Your task to perform on an android device: turn notification dots off Image 0: 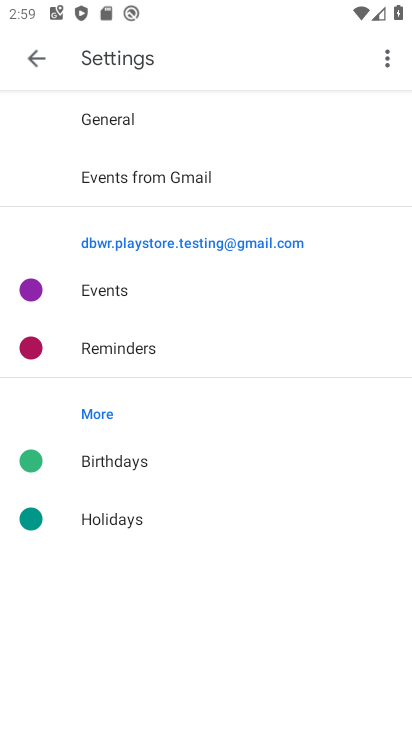
Step 0: press home button
Your task to perform on an android device: turn notification dots off Image 1: 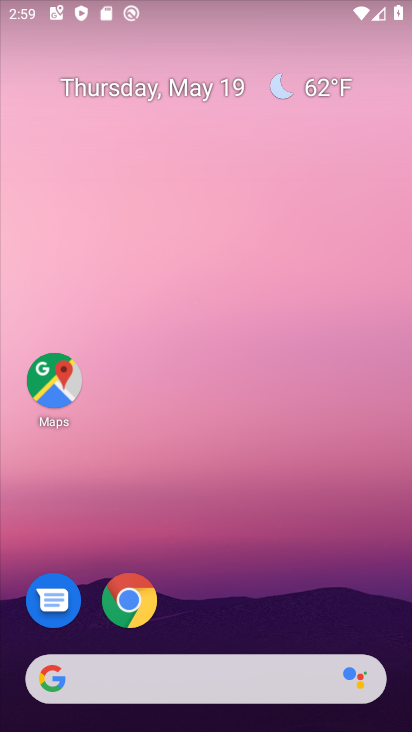
Step 1: drag from (93, 477) to (366, 84)
Your task to perform on an android device: turn notification dots off Image 2: 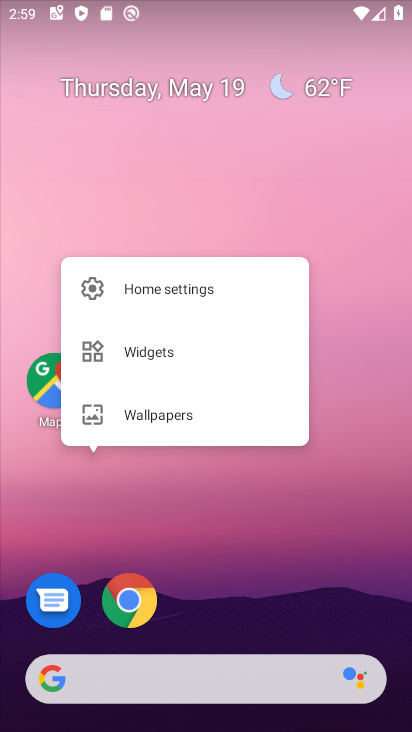
Step 2: drag from (39, 445) to (253, 104)
Your task to perform on an android device: turn notification dots off Image 3: 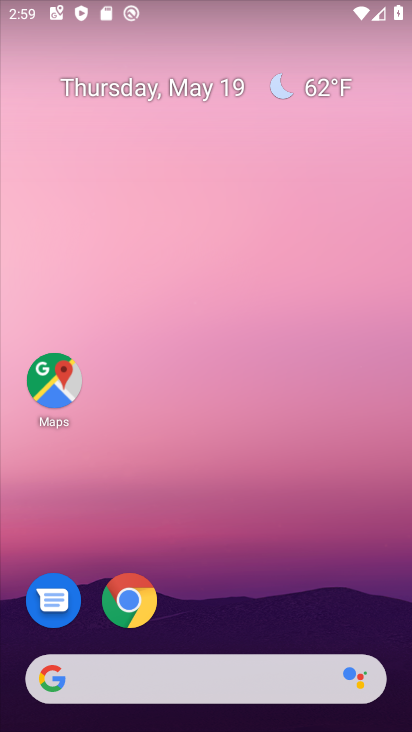
Step 3: drag from (18, 579) to (194, 237)
Your task to perform on an android device: turn notification dots off Image 4: 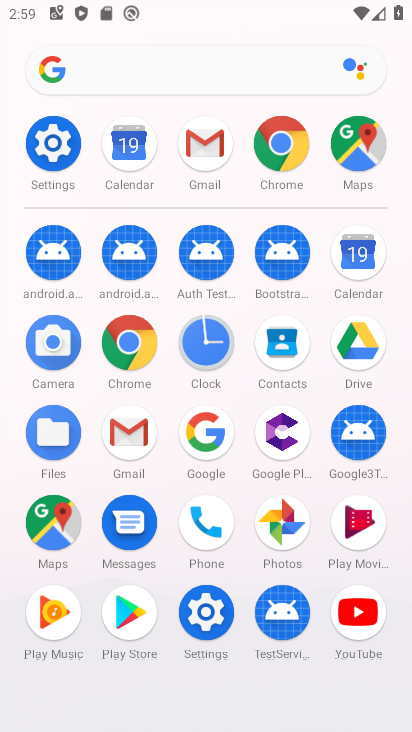
Step 4: click (34, 125)
Your task to perform on an android device: turn notification dots off Image 5: 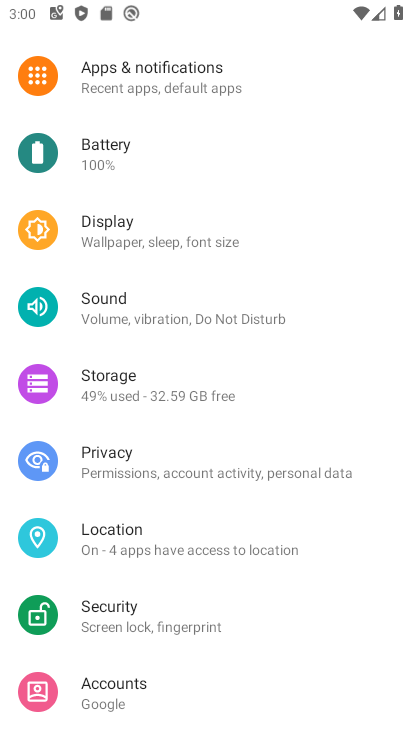
Step 5: click (202, 86)
Your task to perform on an android device: turn notification dots off Image 6: 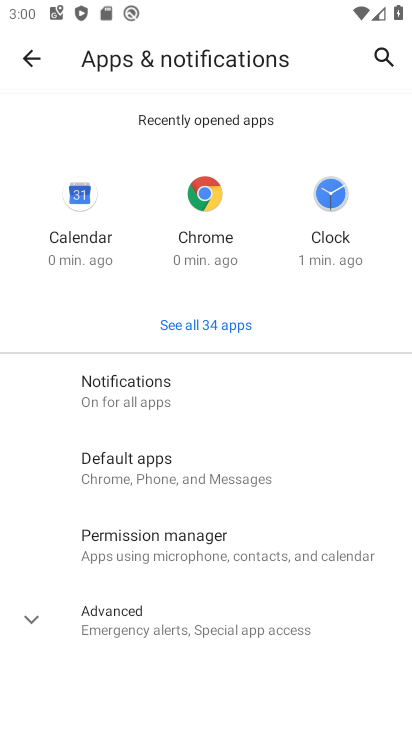
Step 6: click (227, 368)
Your task to perform on an android device: turn notification dots off Image 7: 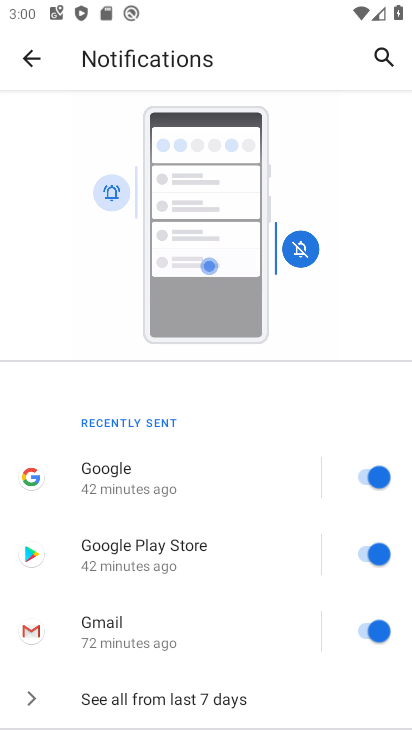
Step 7: drag from (6, 661) to (230, 165)
Your task to perform on an android device: turn notification dots off Image 8: 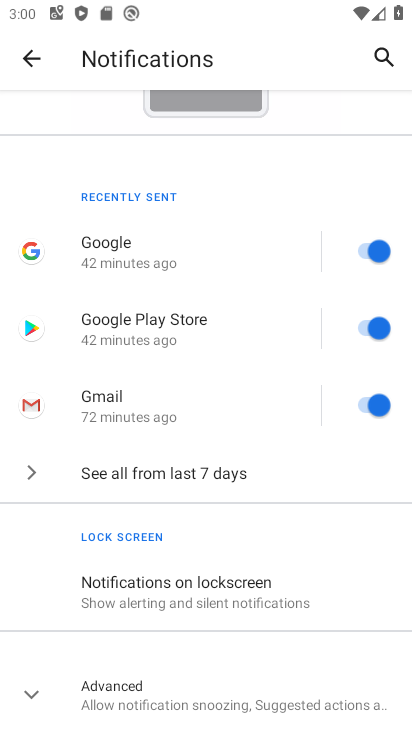
Step 8: click (125, 695)
Your task to perform on an android device: turn notification dots off Image 9: 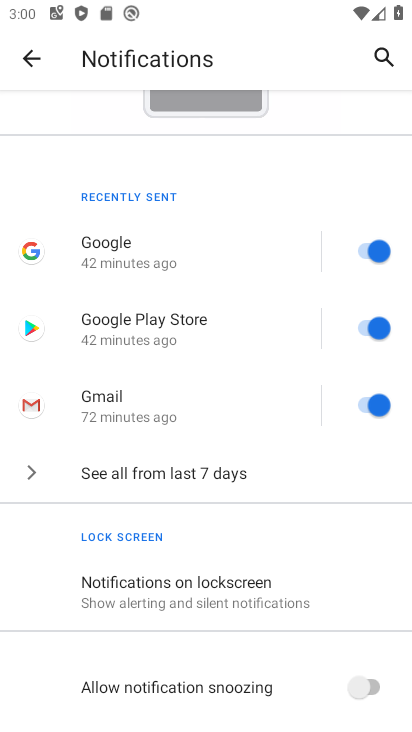
Step 9: task complete